Your task to perform on an android device: Go to Reddit.com Image 0: 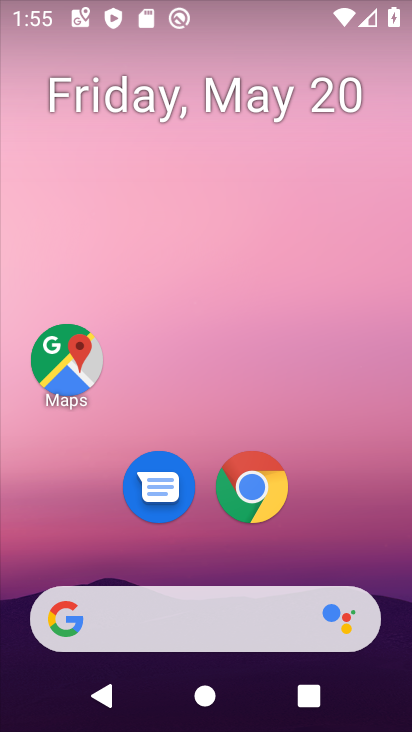
Step 0: click (258, 498)
Your task to perform on an android device: Go to Reddit.com Image 1: 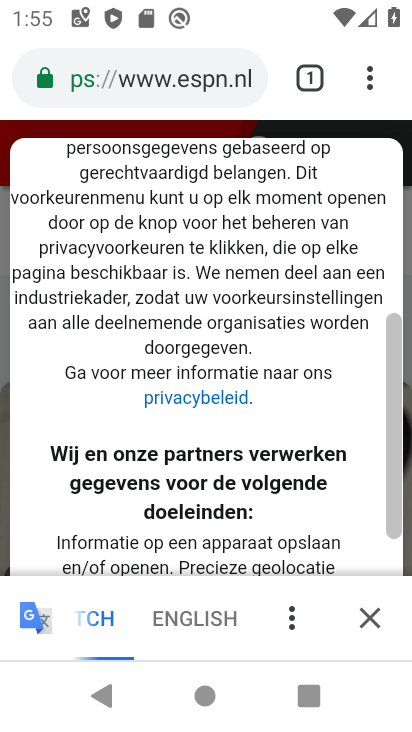
Step 1: click (162, 85)
Your task to perform on an android device: Go to Reddit.com Image 2: 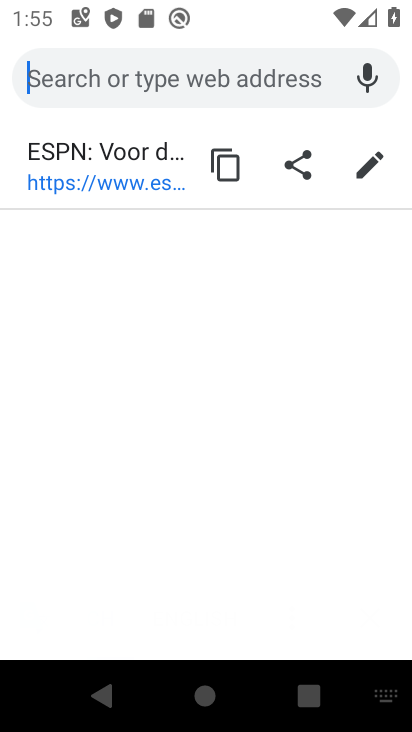
Step 2: type "reddit"
Your task to perform on an android device: Go to Reddit.com Image 3: 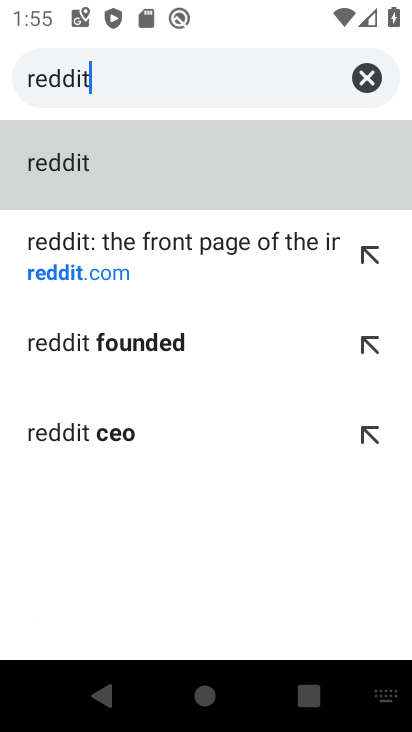
Step 3: click (91, 273)
Your task to perform on an android device: Go to Reddit.com Image 4: 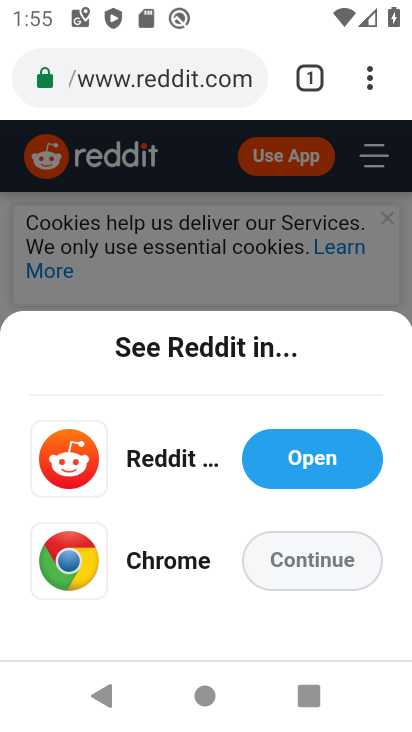
Step 4: task complete